Your task to perform on an android device: open device folders in google photos Image 0: 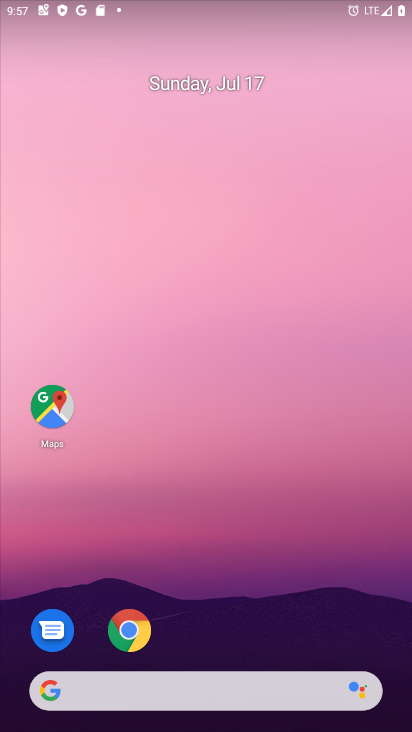
Step 0: drag from (216, 646) to (225, 141)
Your task to perform on an android device: open device folders in google photos Image 1: 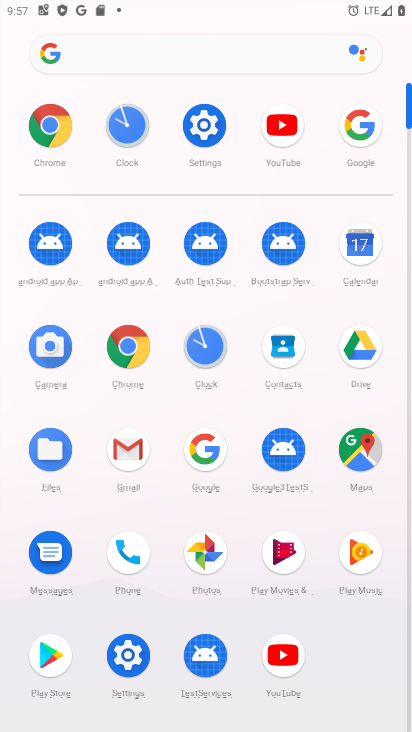
Step 1: click (201, 551)
Your task to perform on an android device: open device folders in google photos Image 2: 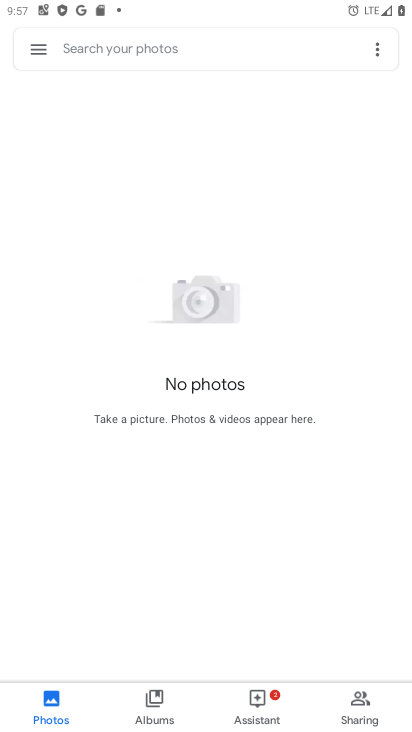
Step 2: click (36, 43)
Your task to perform on an android device: open device folders in google photos Image 3: 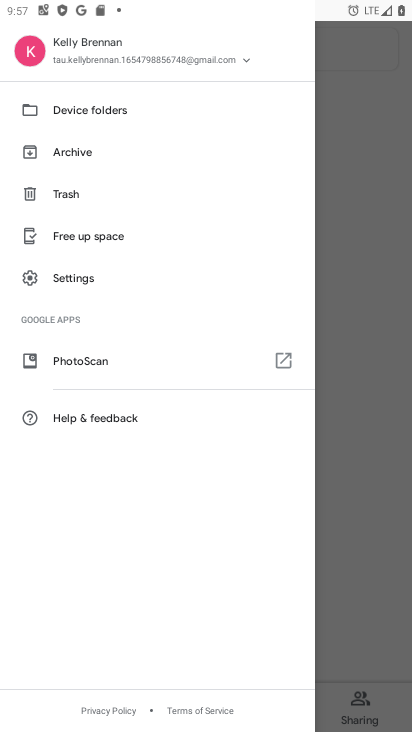
Step 3: click (105, 102)
Your task to perform on an android device: open device folders in google photos Image 4: 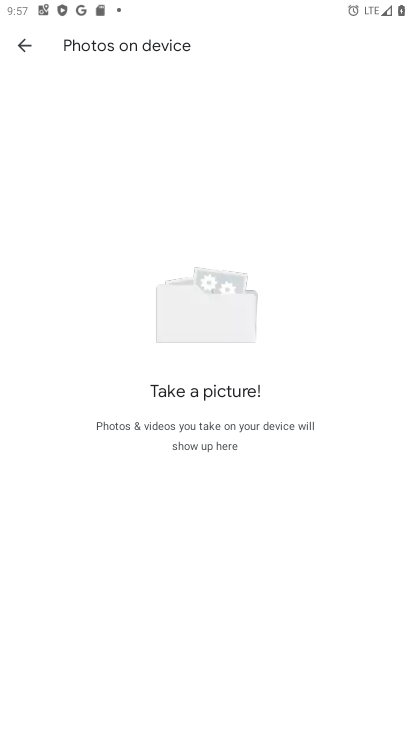
Step 4: task complete